Your task to perform on an android device: turn on showing notifications on the lock screen Image 0: 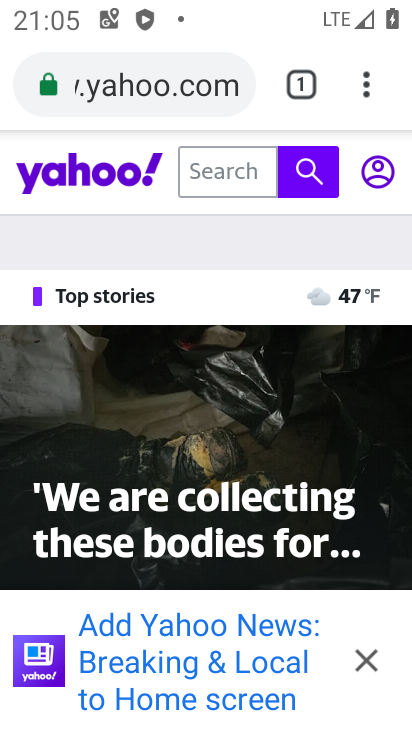
Step 0: press home button
Your task to perform on an android device: turn on showing notifications on the lock screen Image 1: 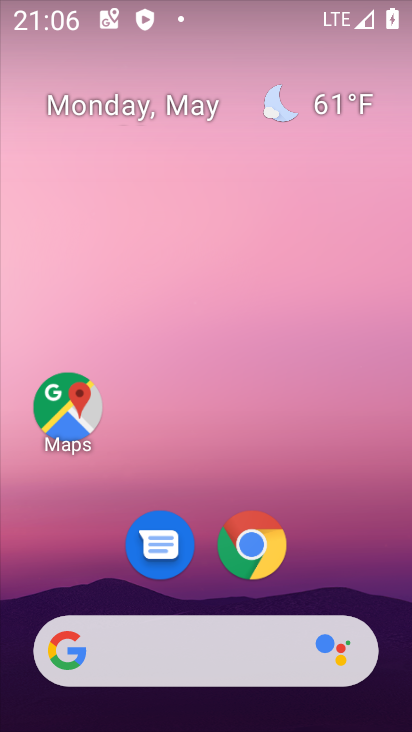
Step 1: drag from (184, 626) to (132, 82)
Your task to perform on an android device: turn on showing notifications on the lock screen Image 2: 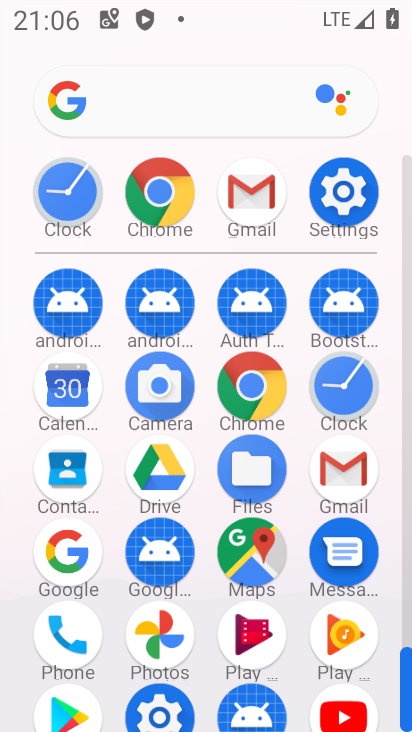
Step 2: click (347, 198)
Your task to perform on an android device: turn on showing notifications on the lock screen Image 3: 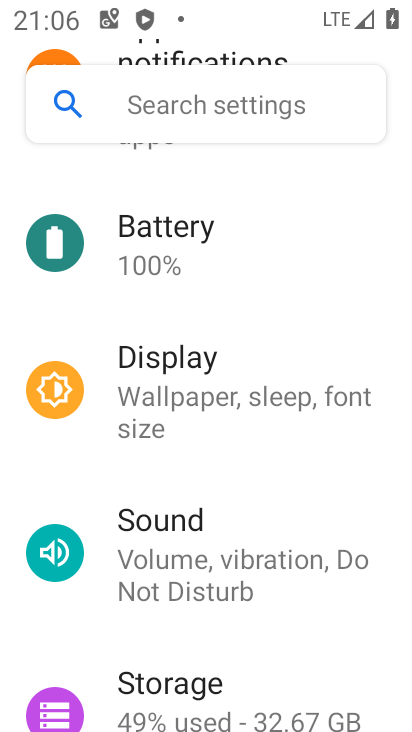
Step 3: drag from (181, 190) to (117, 555)
Your task to perform on an android device: turn on showing notifications on the lock screen Image 4: 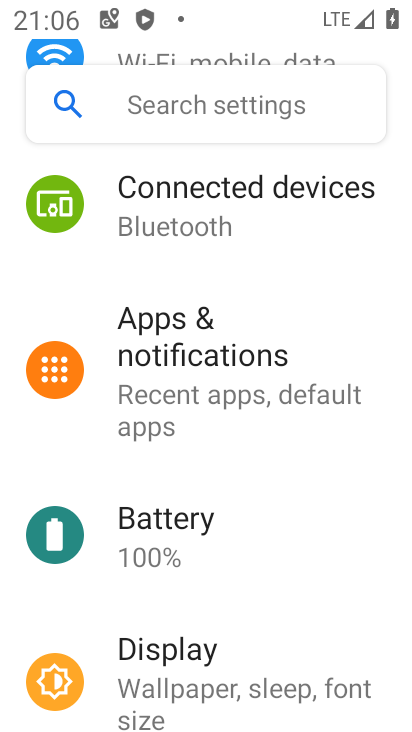
Step 4: click (180, 335)
Your task to perform on an android device: turn on showing notifications on the lock screen Image 5: 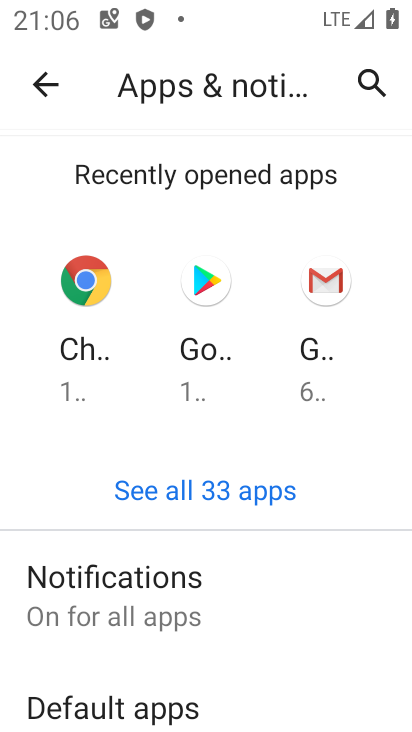
Step 5: click (150, 624)
Your task to perform on an android device: turn on showing notifications on the lock screen Image 6: 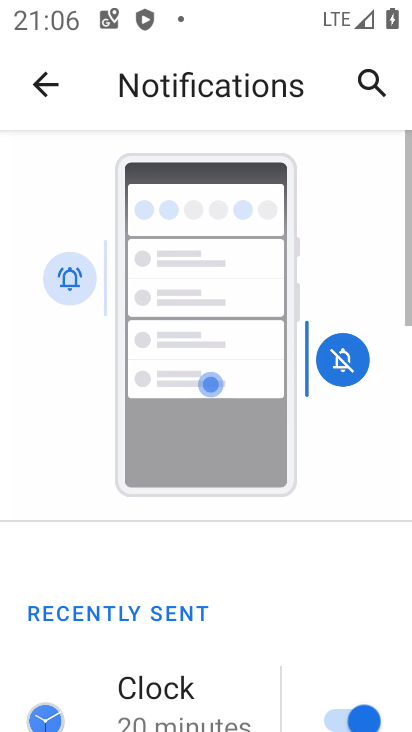
Step 6: drag from (150, 624) to (107, 73)
Your task to perform on an android device: turn on showing notifications on the lock screen Image 7: 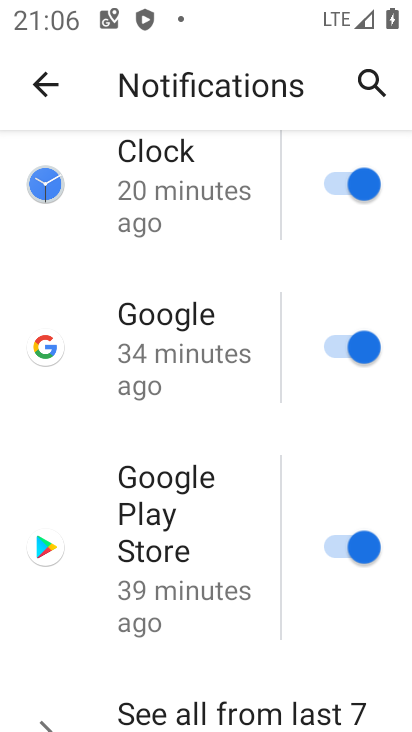
Step 7: drag from (249, 632) to (209, 69)
Your task to perform on an android device: turn on showing notifications on the lock screen Image 8: 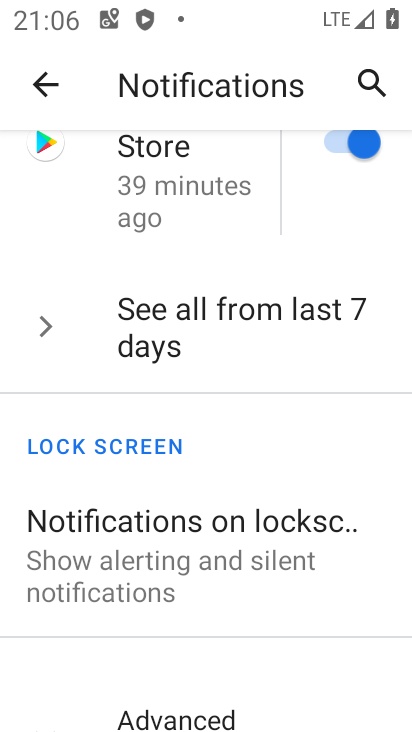
Step 8: click (220, 533)
Your task to perform on an android device: turn on showing notifications on the lock screen Image 9: 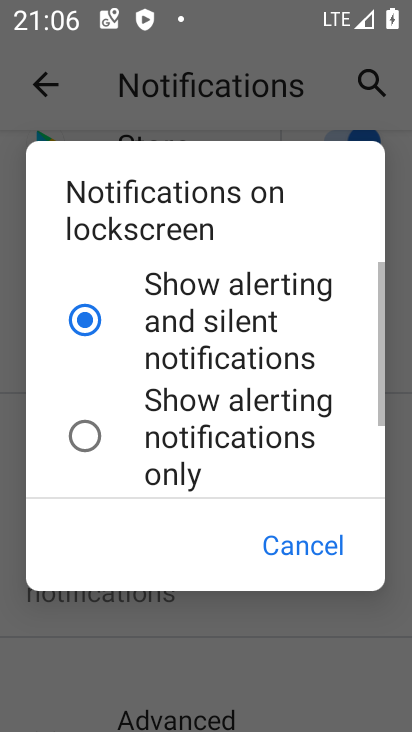
Step 9: click (192, 299)
Your task to perform on an android device: turn on showing notifications on the lock screen Image 10: 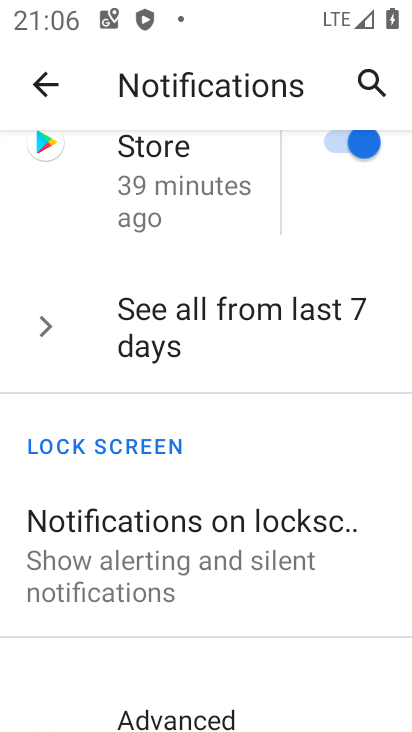
Step 10: task complete